Your task to perform on an android device: Play the last video I watched on Youtube Image 0: 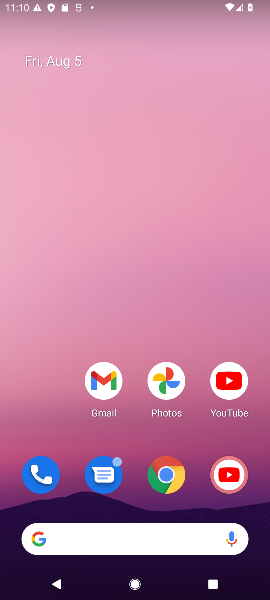
Step 0: click (224, 477)
Your task to perform on an android device: Play the last video I watched on Youtube Image 1: 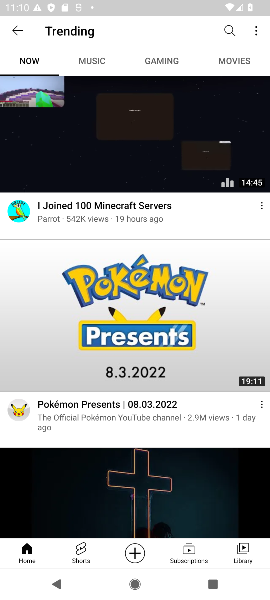
Step 1: click (248, 553)
Your task to perform on an android device: Play the last video I watched on Youtube Image 2: 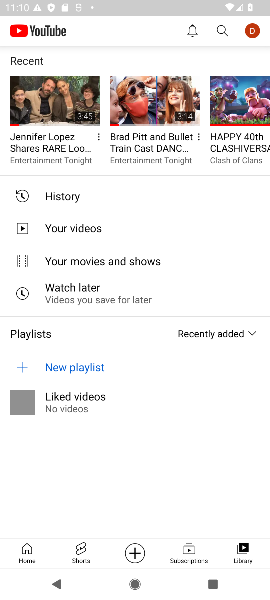
Step 2: click (50, 109)
Your task to perform on an android device: Play the last video I watched on Youtube Image 3: 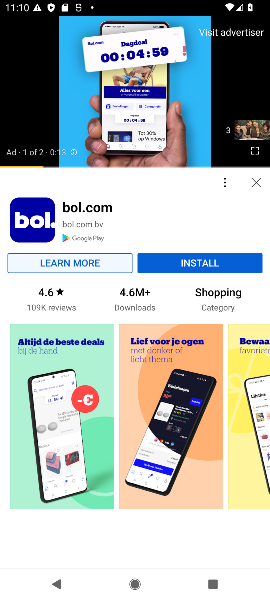
Step 3: task complete